Your task to perform on an android device: Open CNN.com Image 0: 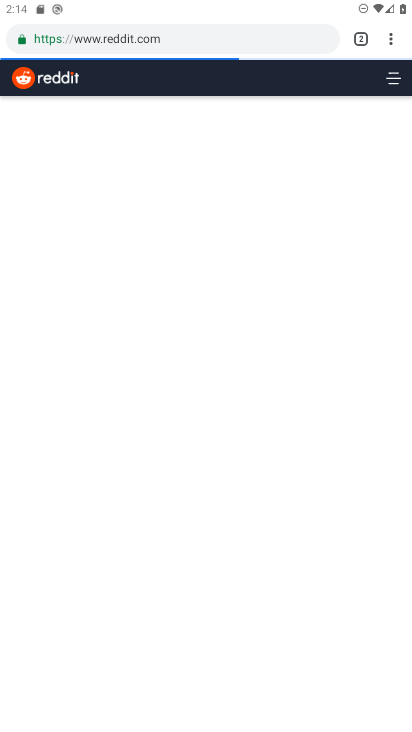
Step 0: press home button
Your task to perform on an android device: Open CNN.com Image 1: 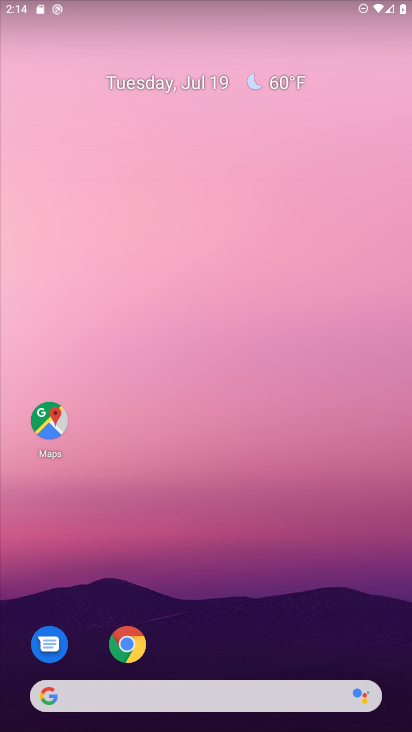
Step 1: click (128, 640)
Your task to perform on an android device: Open CNN.com Image 2: 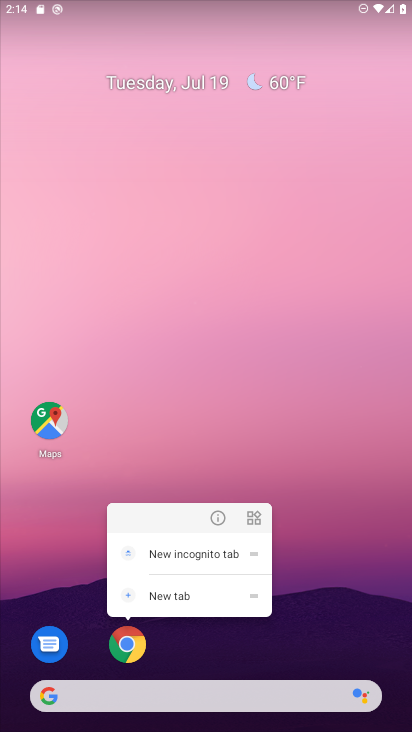
Step 2: click (128, 640)
Your task to perform on an android device: Open CNN.com Image 3: 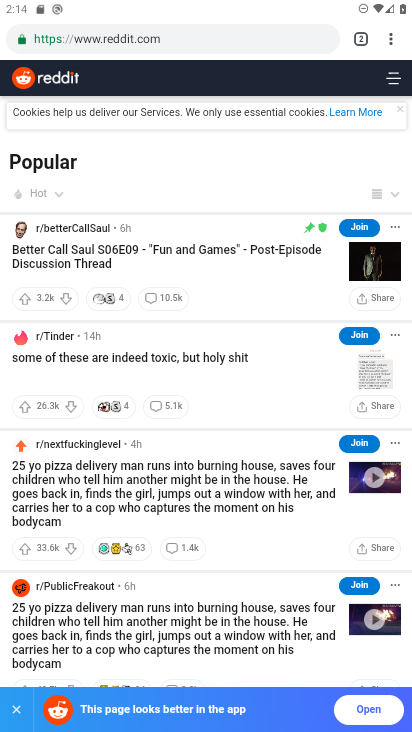
Step 3: click (362, 40)
Your task to perform on an android device: Open CNN.com Image 4: 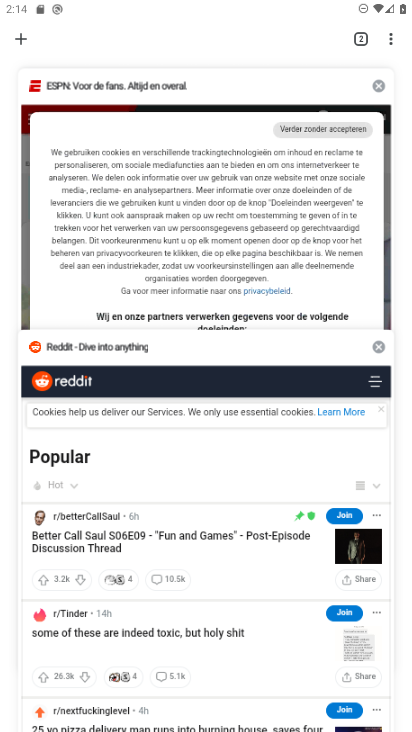
Step 4: click (20, 33)
Your task to perform on an android device: Open CNN.com Image 5: 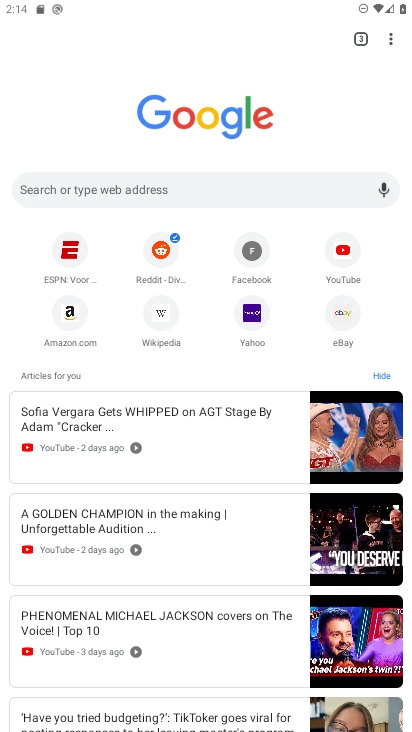
Step 5: click (152, 189)
Your task to perform on an android device: Open CNN.com Image 6: 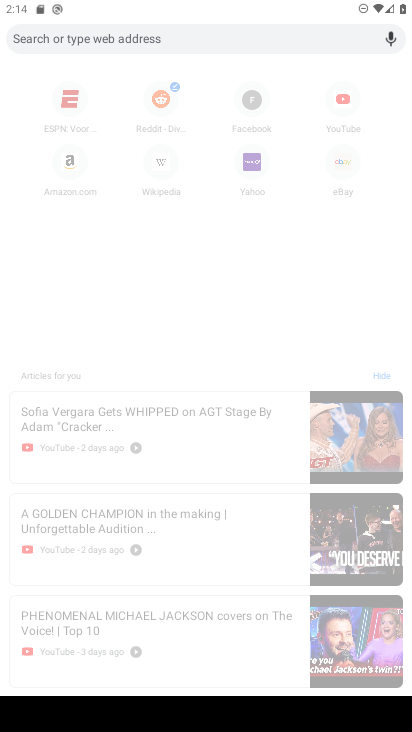
Step 6: type "CNN.com"
Your task to perform on an android device: Open CNN.com Image 7: 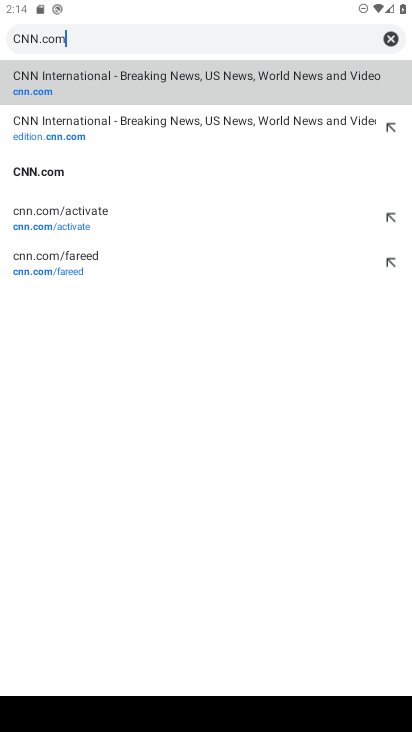
Step 7: type ""
Your task to perform on an android device: Open CNN.com Image 8: 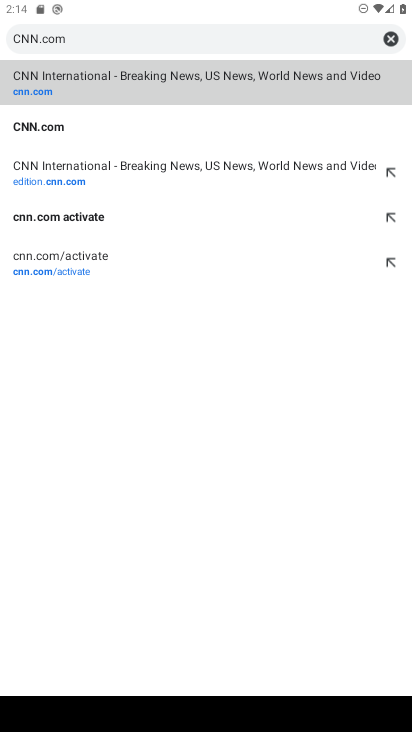
Step 8: click (292, 99)
Your task to perform on an android device: Open CNN.com Image 9: 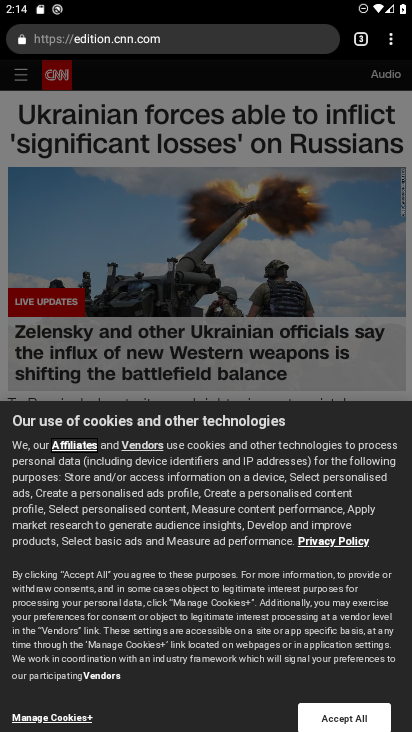
Step 9: task complete